Your task to perform on an android device: Go to Maps Image 0: 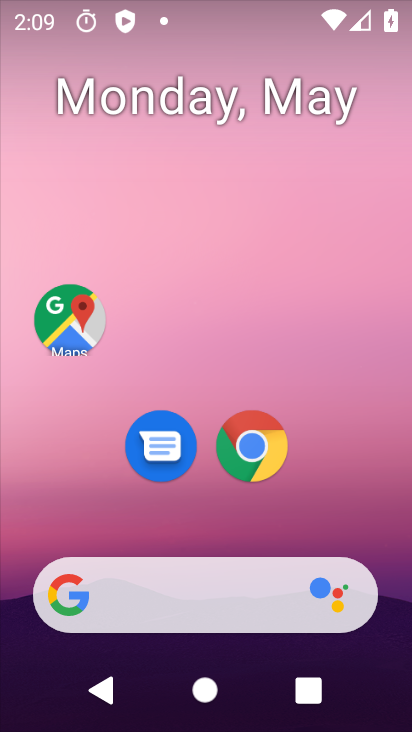
Step 0: click (69, 351)
Your task to perform on an android device: Go to Maps Image 1: 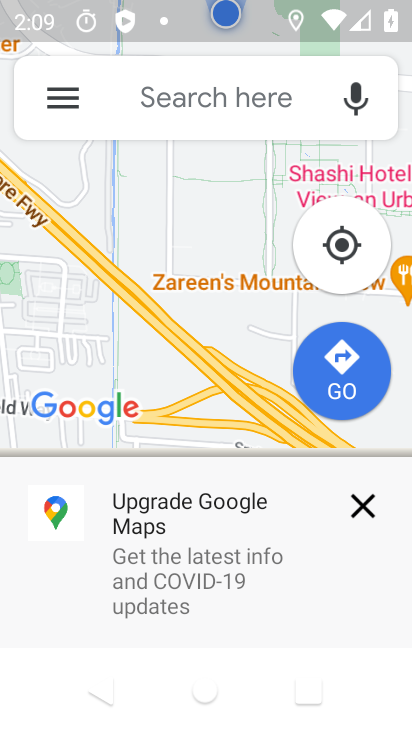
Step 1: task complete